Your task to perform on an android device: Search for panasonic triple a on target, select the first entry, and add it to the cart. Image 0: 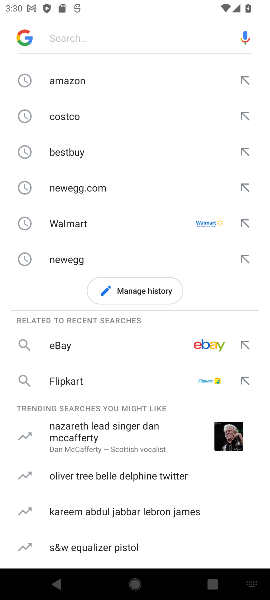
Step 0: press home button
Your task to perform on an android device: Search for panasonic triple a on target, select the first entry, and add it to the cart. Image 1: 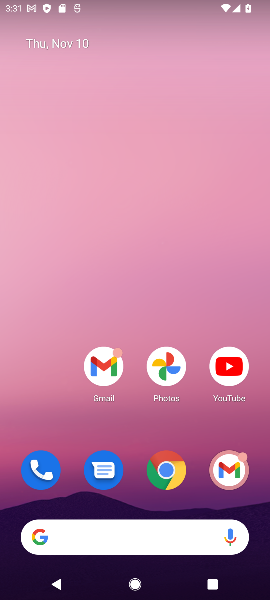
Step 1: click (164, 471)
Your task to perform on an android device: Search for panasonic triple a on target, select the first entry, and add it to the cart. Image 2: 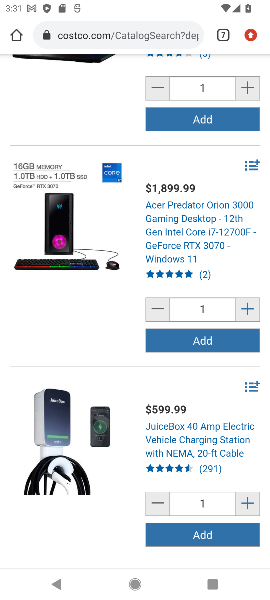
Step 2: click (222, 29)
Your task to perform on an android device: Search for panasonic triple a on target, select the first entry, and add it to the cart. Image 3: 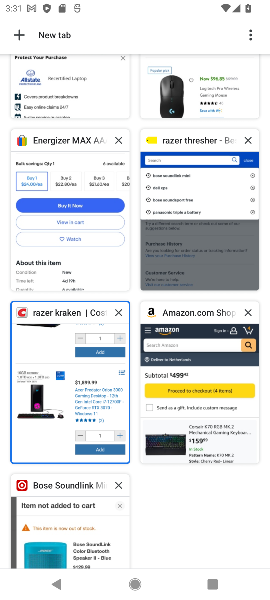
Step 3: click (67, 507)
Your task to perform on an android device: Search for panasonic triple a on target, select the first entry, and add it to the cart. Image 4: 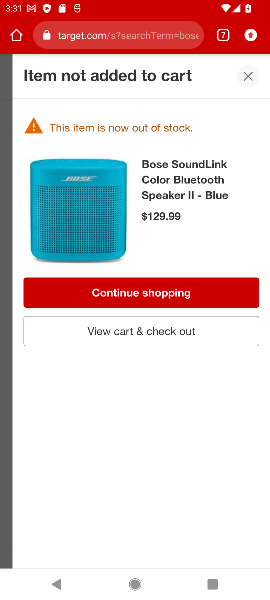
Step 4: click (246, 72)
Your task to perform on an android device: Search for panasonic triple a on target, select the first entry, and add it to the cart. Image 5: 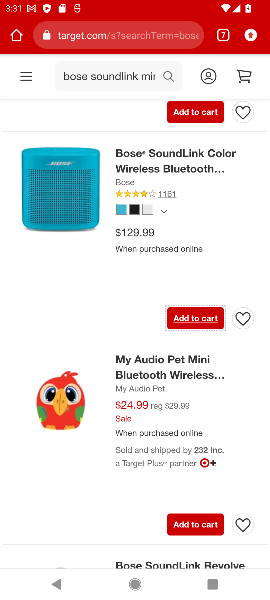
Step 5: click (136, 81)
Your task to perform on an android device: Search for panasonic triple a on target, select the first entry, and add it to the cart. Image 6: 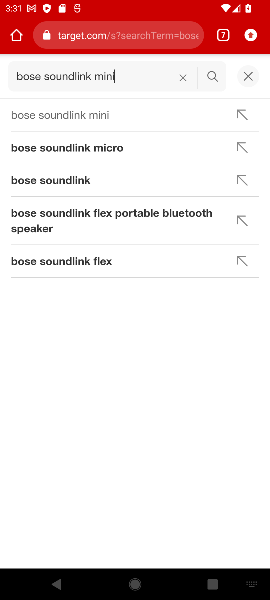
Step 6: click (182, 77)
Your task to perform on an android device: Search for panasonic triple a on target, select the first entry, and add it to the cart. Image 7: 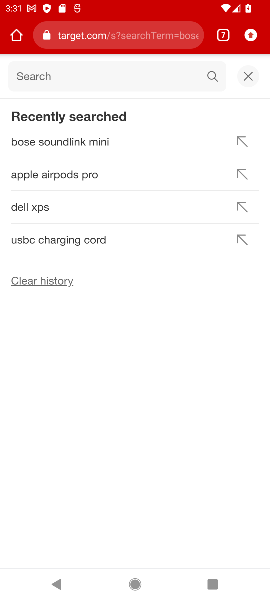
Step 7: click (96, 80)
Your task to perform on an android device: Search for panasonic triple a on target, select the first entry, and add it to the cart. Image 8: 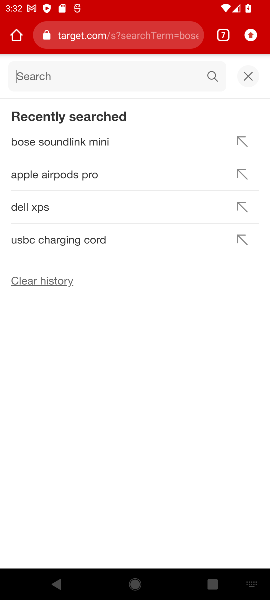
Step 8: type "panasonic triple a o"
Your task to perform on an android device: Search for panasonic triple a on target, select the first entry, and add it to the cart. Image 9: 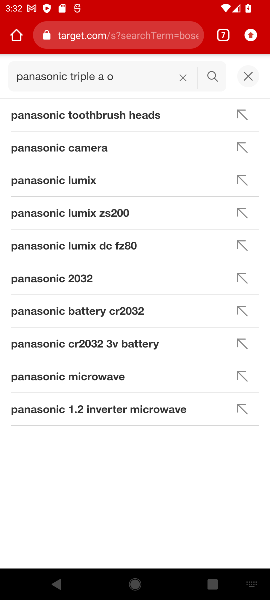
Step 9: click (212, 75)
Your task to perform on an android device: Search for panasonic triple a on target, select the first entry, and add it to the cart. Image 10: 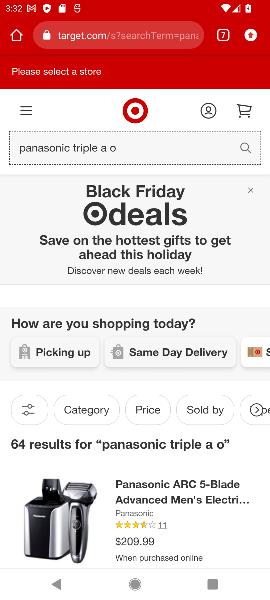
Step 10: drag from (121, 467) to (256, 34)
Your task to perform on an android device: Search for panasonic triple a on target, select the first entry, and add it to the cart. Image 11: 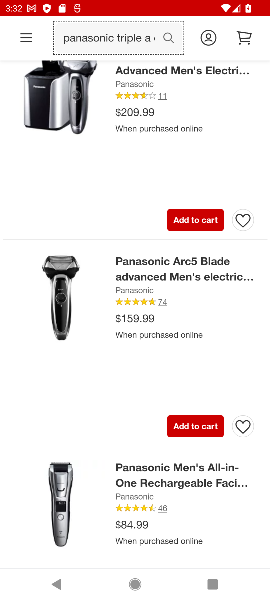
Step 11: drag from (157, 332) to (269, 163)
Your task to perform on an android device: Search for panasonic triple a on target, select the first entry, and add it to the cart. Image 12: 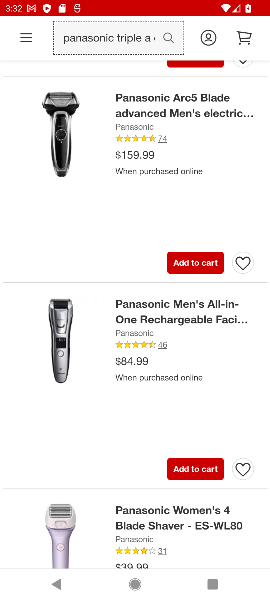
Step 12: drag from (141, 213) to (92, 504)
Your task to perform on an android device: Search for panasonic triple a on target, select the first entry, and add it to the cart. Image 13: 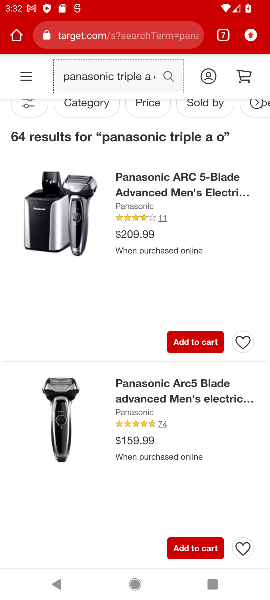
Step 13: click (142, 72)
Your task to perform on an android device: Search for panasonic triple a on target, select the first entry, and add it to the cart. Image 14: 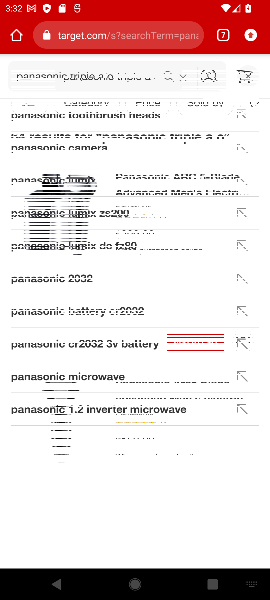
Step 14: click (186, 78)
Your task to perform on an android device: Search for panasonic triple a on target, select the first entry, and add it to the cart. Image 15: 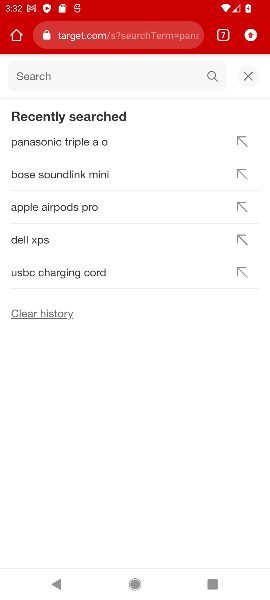
Step 15: type "panasonic triple a battery"
Your task to perform on an android device: Search for panasonic triple a on target, select the first entry, and add it to the cart. Image 16: 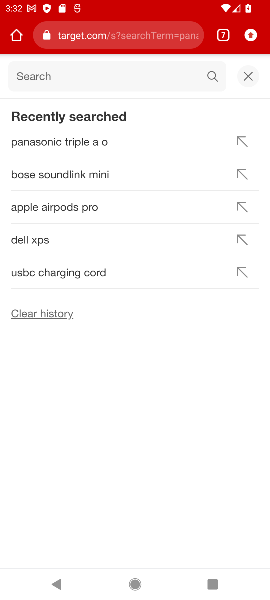
Step 16: click (151, 76)
Your task to perform on an android device: Search for panasonic triple a on target, select the first entry, and add it to the cart. Image 17: 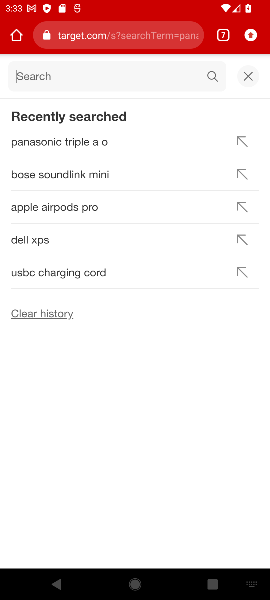
Step 17: type "panasonic triple a batteryu"
Your task to perform on an android device: Search for panasonic triple a on target, select the first entry, and add it to the cart. Image 18: 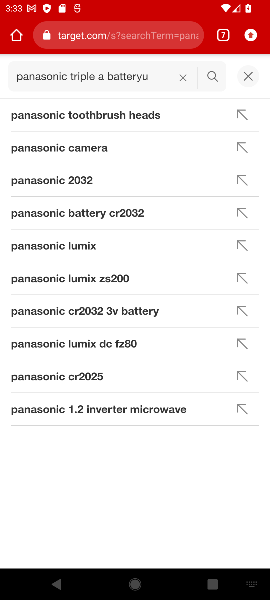
Step 18: click (215, 79)
Your task to perform on an android device: Search for panasonic triple a on target, select the first entry, and add it to the cart. Image 19: 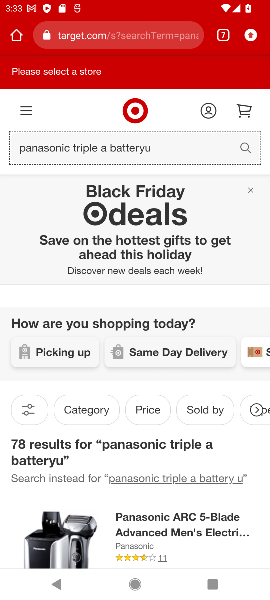
Step 19: drag from (151, 478) to (255, 95)
Your task to perform on an android device: Search for panasonic triple a on target, select the first entry, and add it to the cart. Image 20: 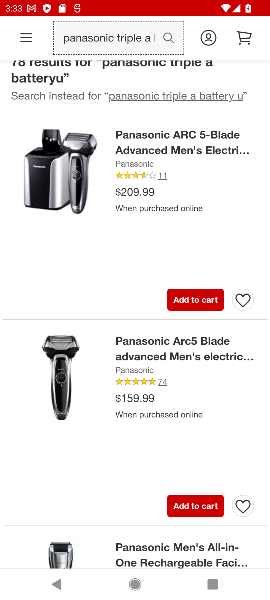
Step 20: click (241, 69)
Your task to perform on an android device: Search for panasonic triple a on target, select the first entry, and add it to the cart. Image 21: 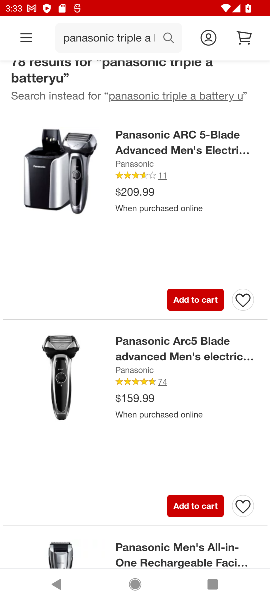
Step 21: drag from (118, 428) to (203, 133)
Your task to perform on an android device: Search for panasonic triple a on target, select the first entry, and add it to the cart. Image 22: 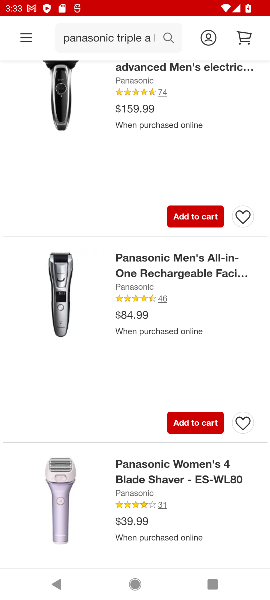
Step 22: drag from (101, 554) to (132, 594)
Your task to perform on an android device: Search for panasonic triple a on target, select the first entry, and add it to the cart. Image 23: 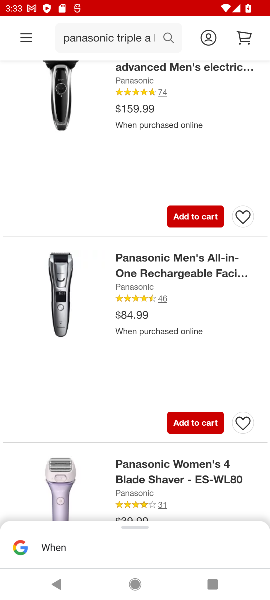
Step 23: drag from (214, 169) to (184, 441)
Your task to perform on an android device: Search for panasonic triple a on target, select the first entry, and add it to the cart. Image 24: 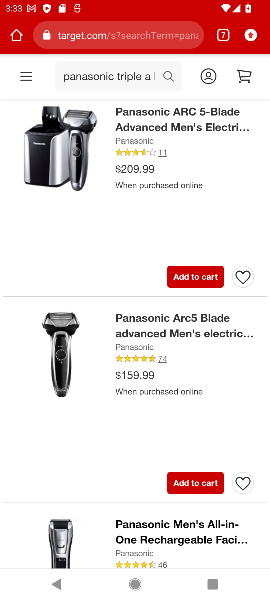
Step 24: drag from (207, 194) to (165, 564)
Your task to perform on an android device: Search for panasonic triple a on target, select the first entry, and add it to the cart. Image 25: 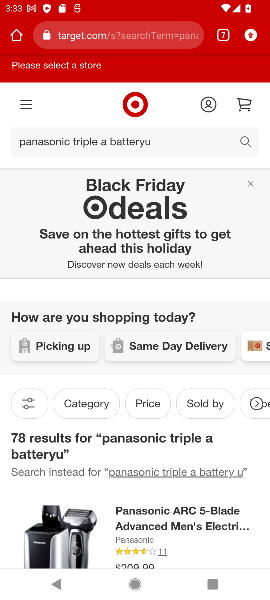
Step 25: drag from (180, 491) to (249, 288)
Your task to perform on an android device: Search for panasonic triple a on target, select the first entry, and add it to the cart. Image 26: 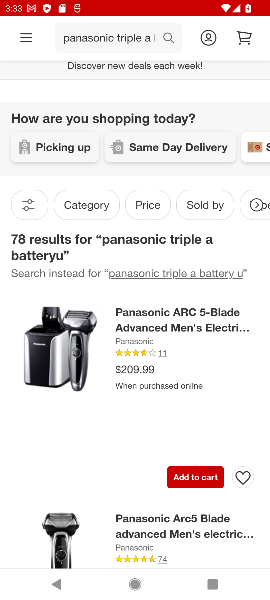
Step 26: click (197, 483)
Your task to perform on an android device: Search for panasonic triple a on target, select the first entry, and add it to the cart. Image 27: 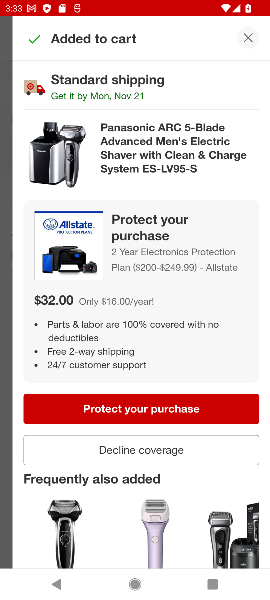
Step 27: task complete